Your task to perform on an android device: turn notification dots off Image 0: 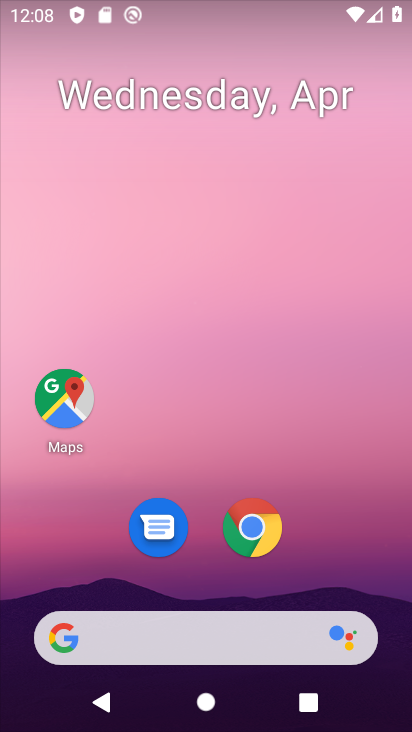
Step 0: drag from (374, 474) to (371, 31)
Your task to perform on an android device: turn notification dots off Image 1: 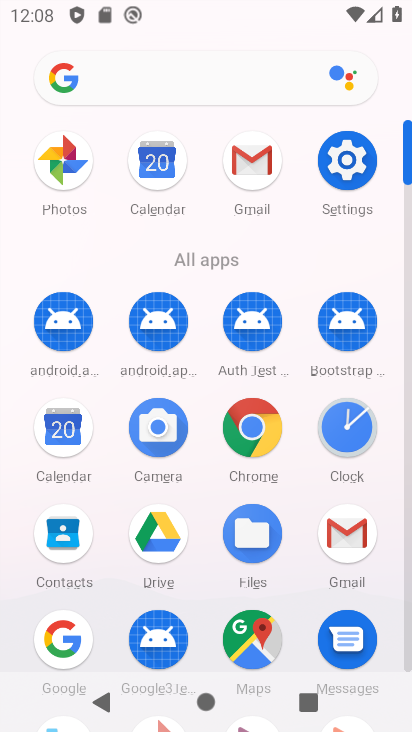
Step 1: click (353, 156)
Your task to perform on an android device: turn notification dots off Image 2: 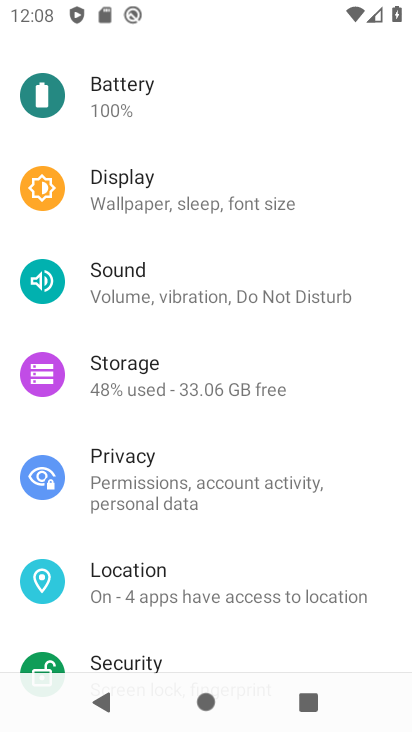
Step 2: drag from (279, 216) to (335, 641)
Your task to perform on an android device: turn notification dots off Image 3: 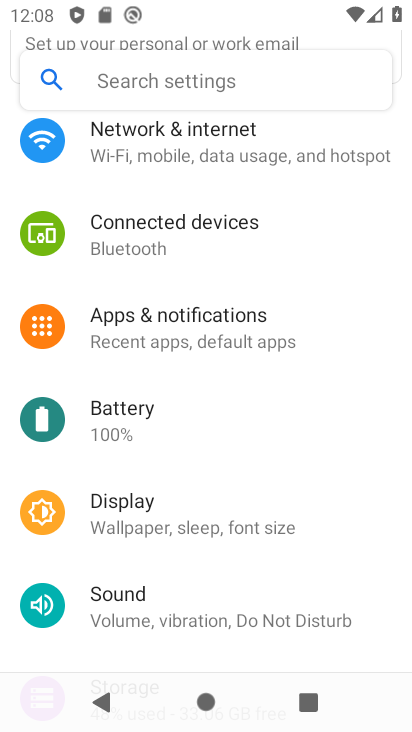
Step 3: drag from (315, 299) to (311, 582)
Your task to perform on an android device: turn notification dots off Image 4: 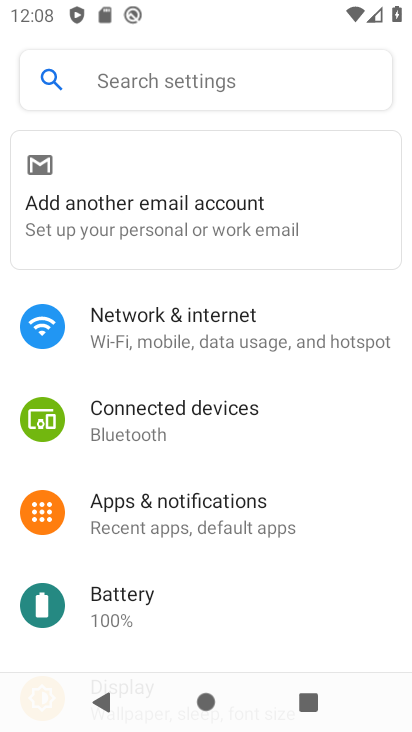
Step 4: click (267, 523)
Your task to perform on an android device: turn notification dots off Image 5: 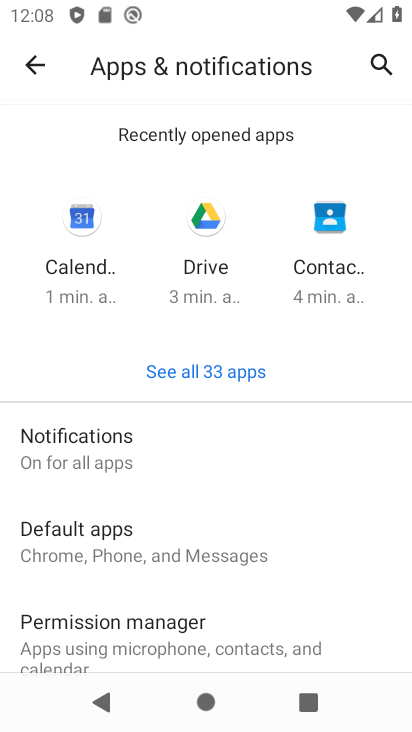
Step 5: drag from (190, 560) to (241, 307)
Your task to perform on an android device: turn notification dots off Image 6: 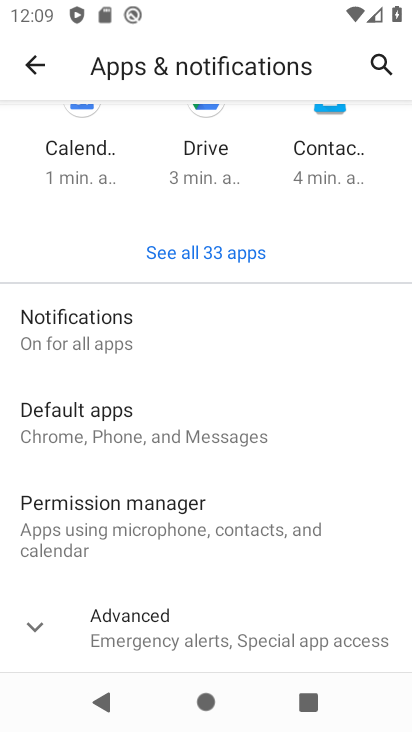
Step 6: click (37, 631)
Your task to perform on an android device: turn notification dots off Image 7: 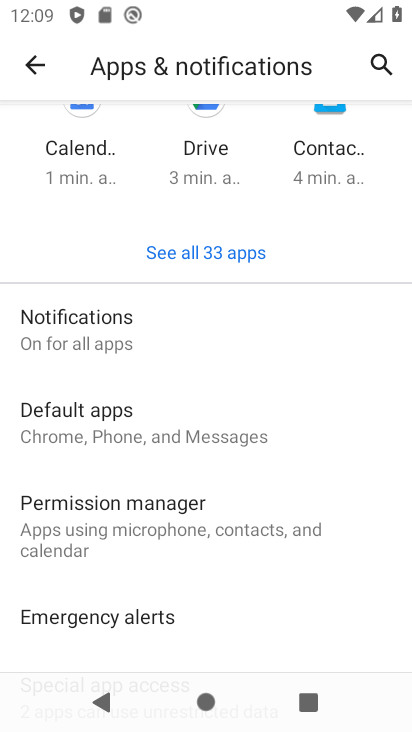
Step 7: drag from (167, 584) to (187, 294)
Your task to perform on an android device: turn notification dots off Image 8: 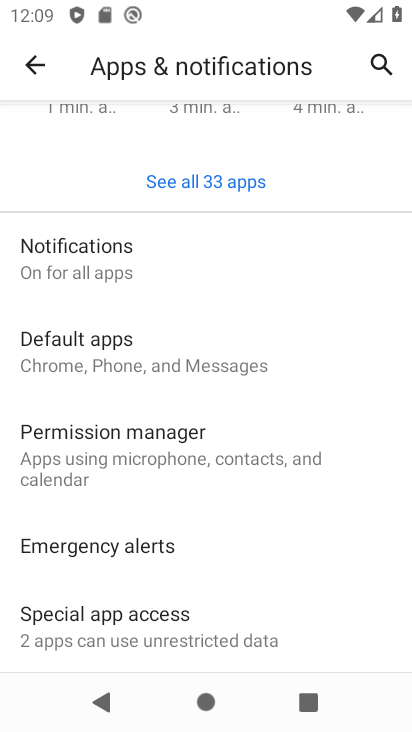
Step 8: drag from (186, 561) to (205, 344)
Your task to perform on an android device: turn notification dots off Image 9: 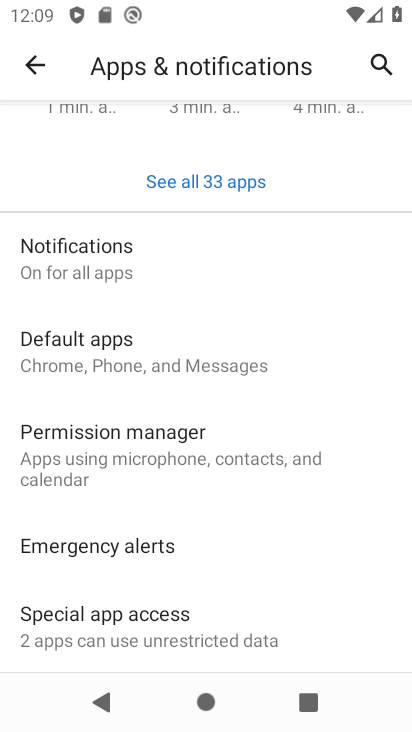
Step 9: drag from (280, 550) to (242, 290)
Your task to perform on an android device: turn notification dots off Image 10: 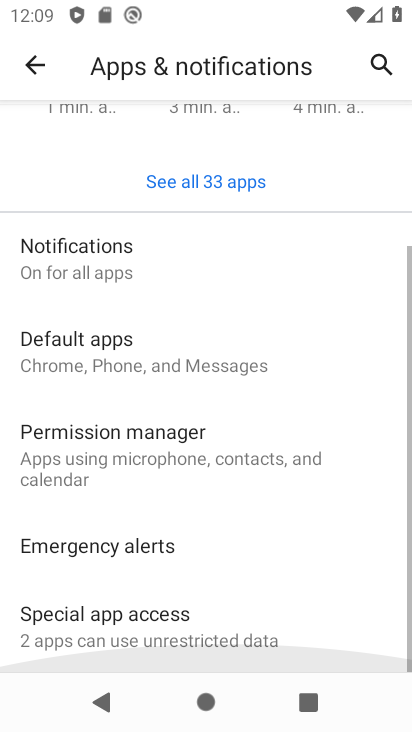
Step 10: click (79, 260)
Your task to perform on an android device: turn notification dots off Image 11: 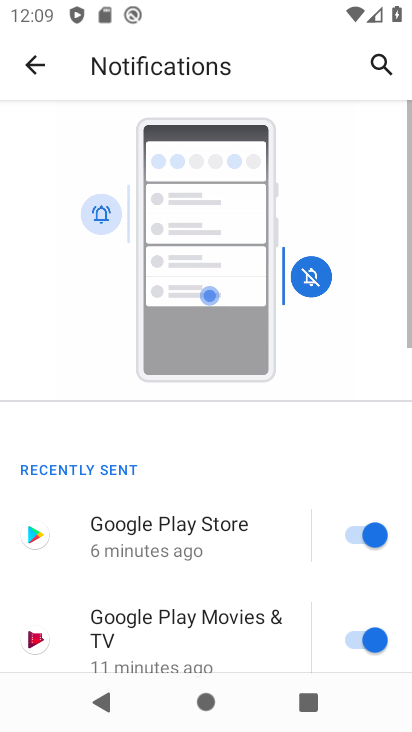
Step 11: drag from (221, 581) to (187, 159)
Your task to perform on an android device: turn notification dots off Image 12: 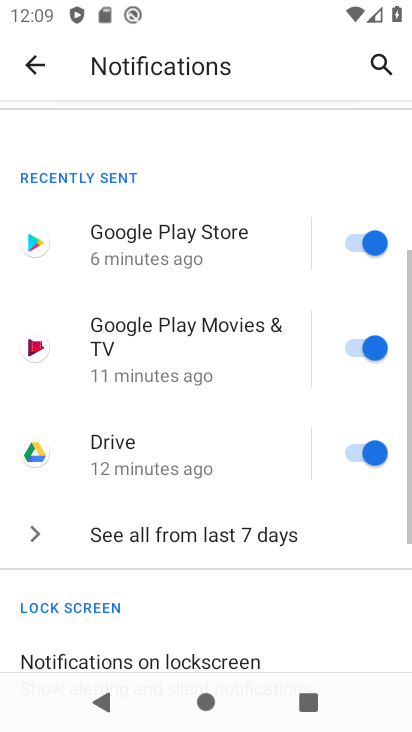
Step 12: drag from (195, 575) to (178, 145)
Your task to perform on an android device: turn notification dots off Image 13: 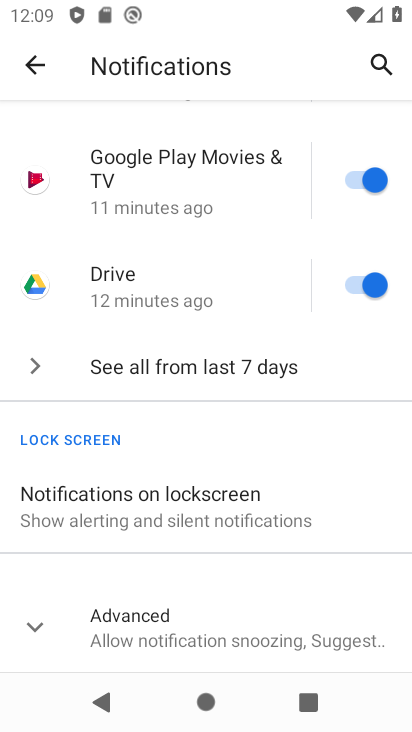
Step 13: click (34, 647)
Your task to perform on an android device: turn notification dots off Image 14: 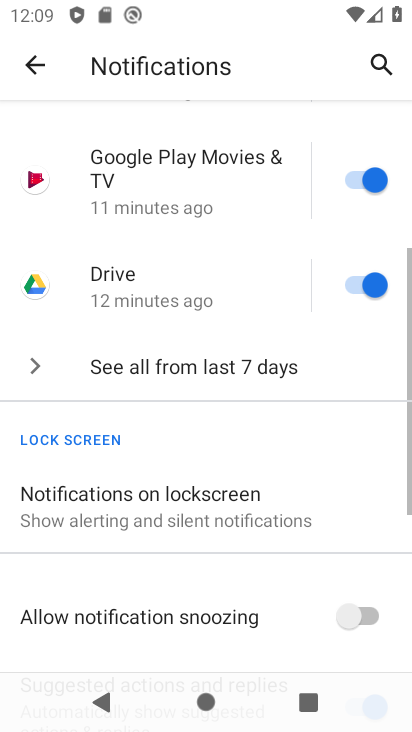
Step 14: drag from (234, 605) to (234, 162)
Your task to perform on an android device: turn notification dots off Image 15: 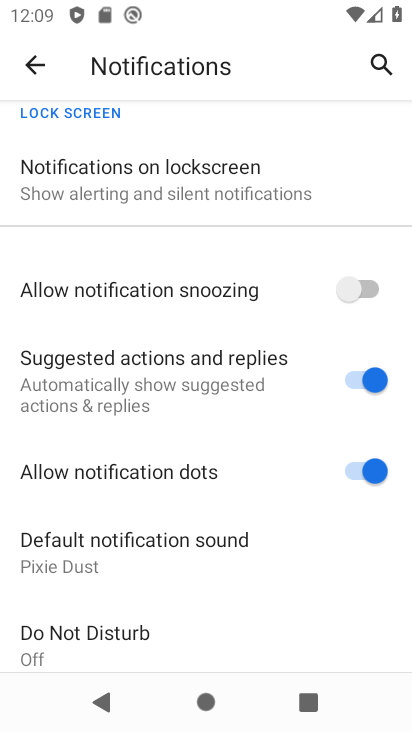
Step 15: click (365, 478)
Your task to perform on an android device: turn notification dots off Image 16: 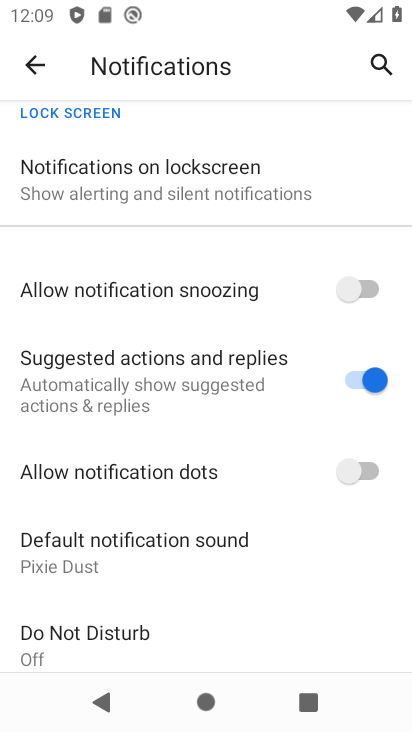
Step 16: task complete